Your task to perform on an android device: Go to Amazon Image 0: 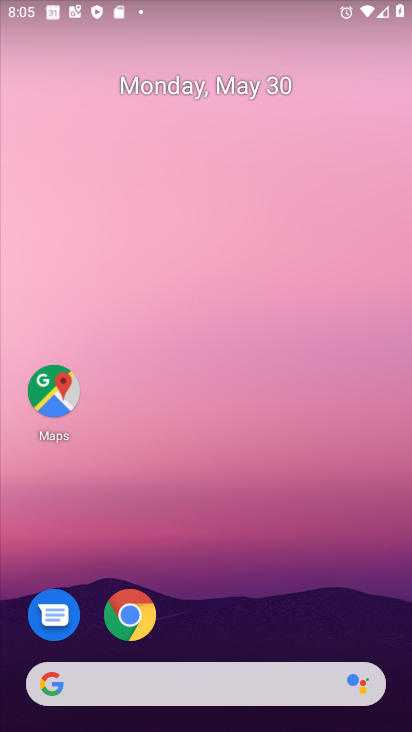
Step 0: drag from (236, 540) to (238, 23)
Your task to perform on an android device: Go to Amazon Image 1: 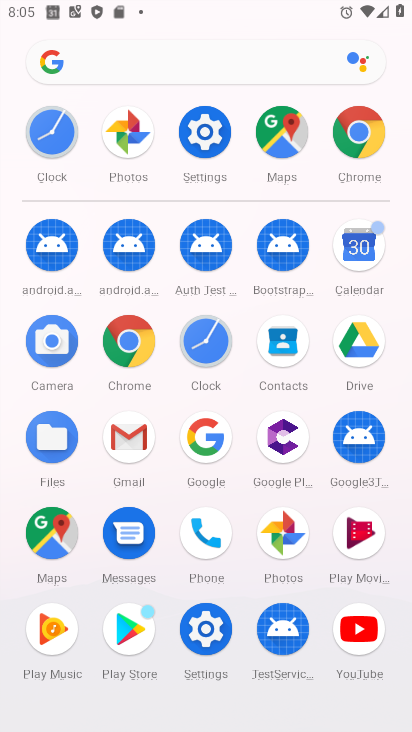
Step 1: click (356, 147)
Your task to perform on an android device: Go to Amazon Image 2: 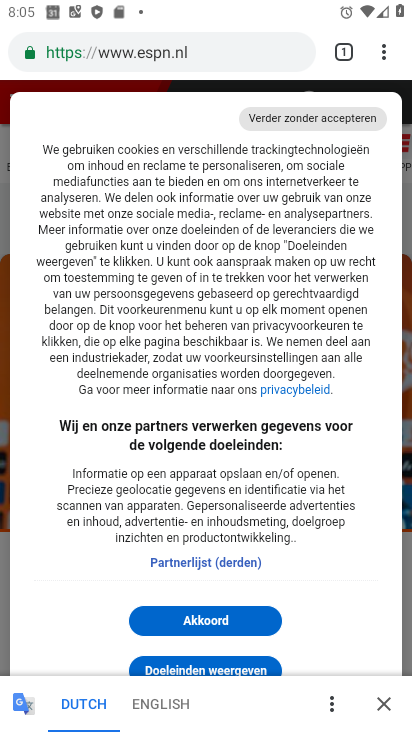
Step 2: click (175, 54)
Your task to perform on an android device: Go to Amazon Image 3: 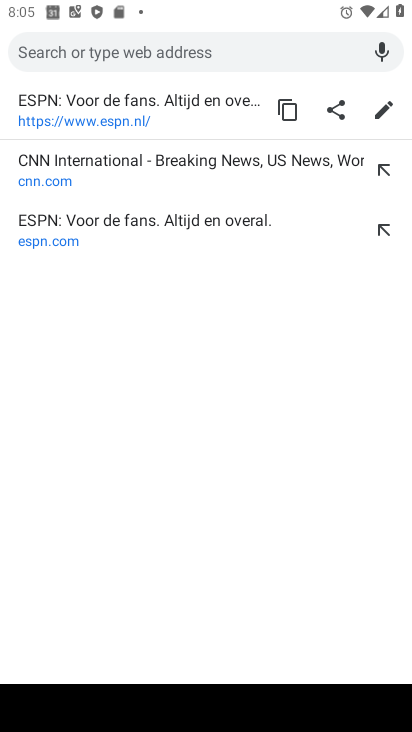
Step 3: type "amazon"
Your task to perform on an android device: Go to Amazon Image 4: 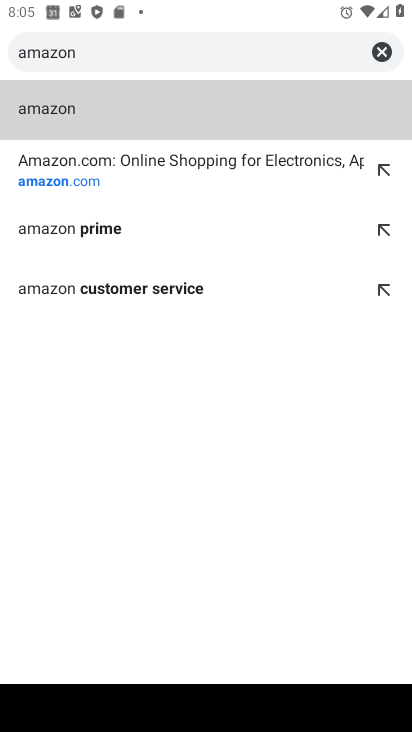
Step 4: click (73, 194)
Your task to perform on an android device: Go to Amazon Image 5: 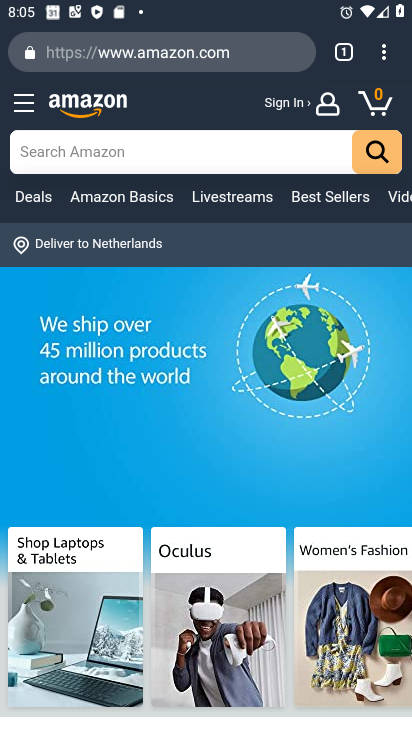
Step 5: task complete